Your task to perform on an android device: Open wifi settings Image 0: 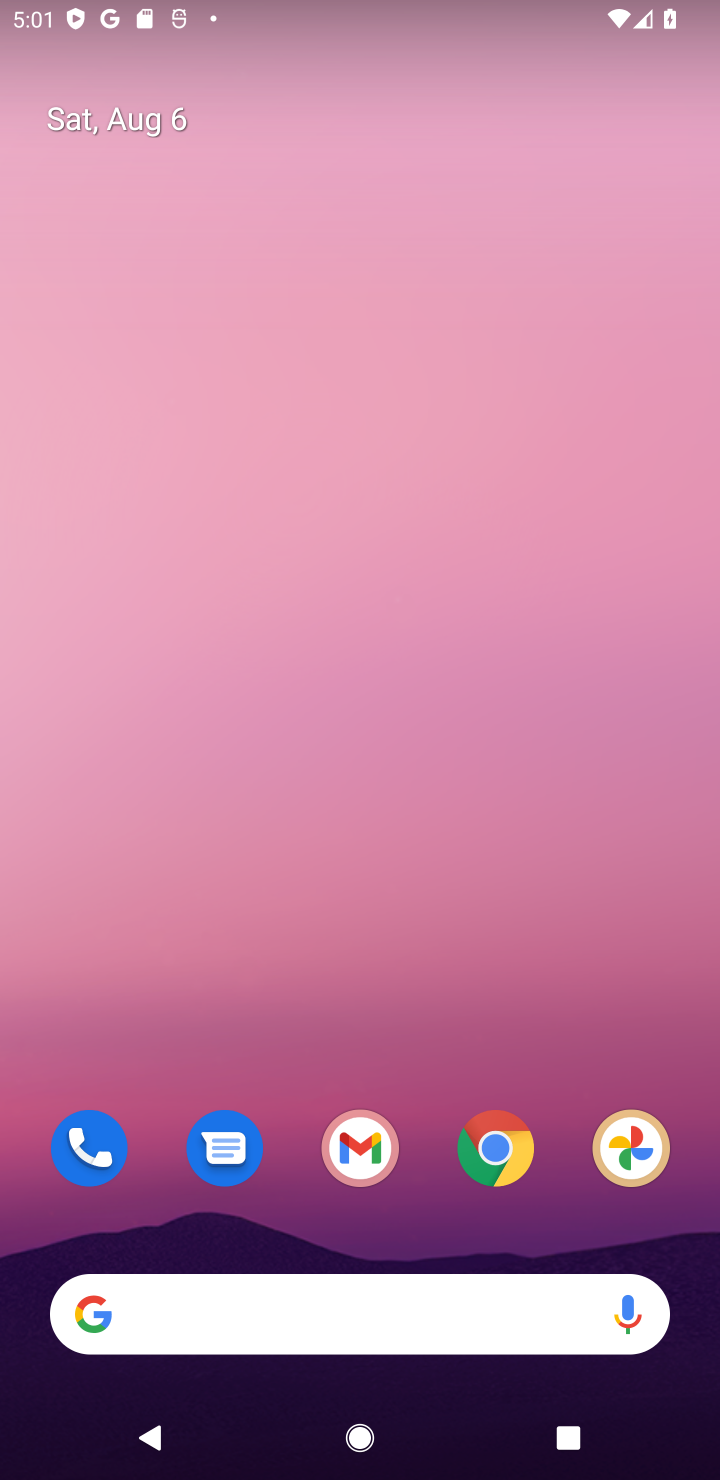
Step 0: drag from (423, 1220) to (696, 66)
Your task to perform on an android device: Open wifi settings Image 1: 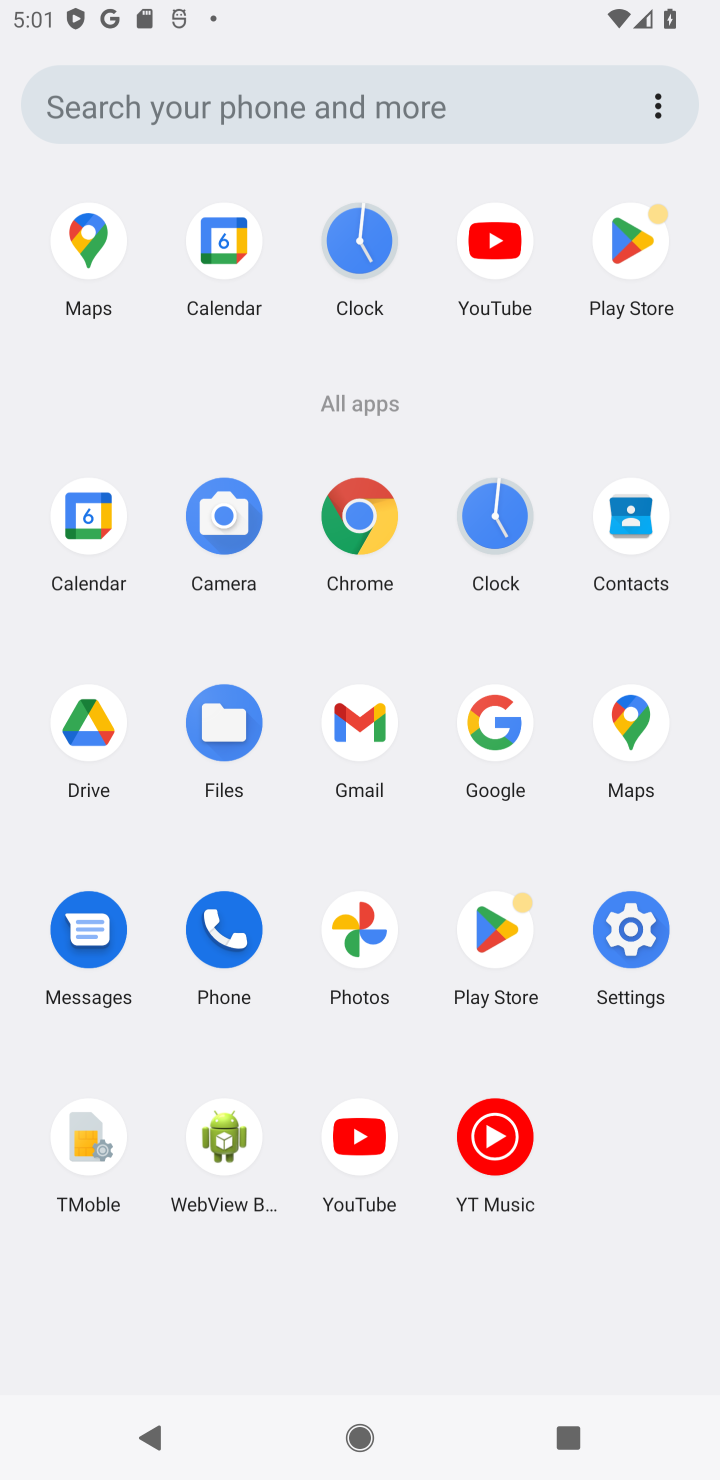
Step 1: click (614, 953)
Your task to perform on an android device: Open wifi settings Image 2: 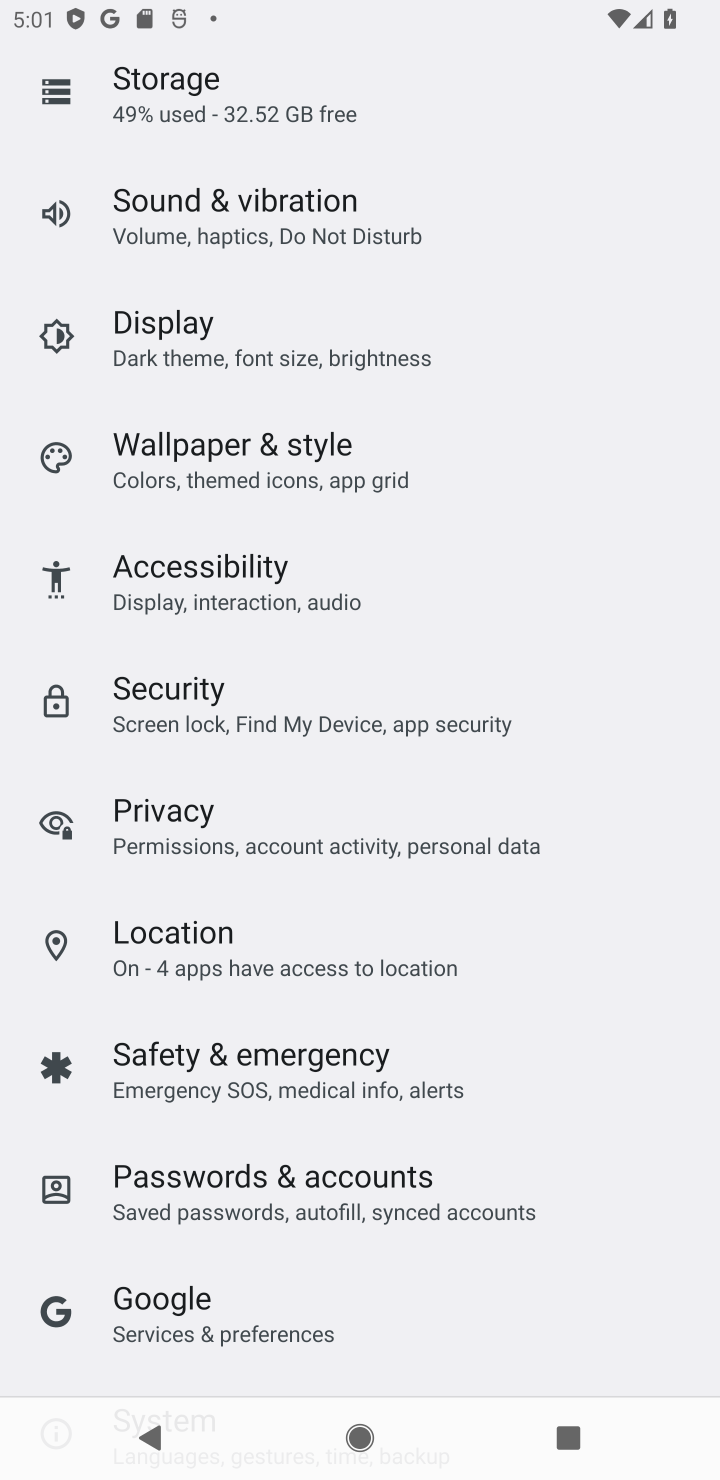
Step 2: drag from (262, 283) to (237, 1025)
Your task to perform on an android device: Open wifi settings Image 3: 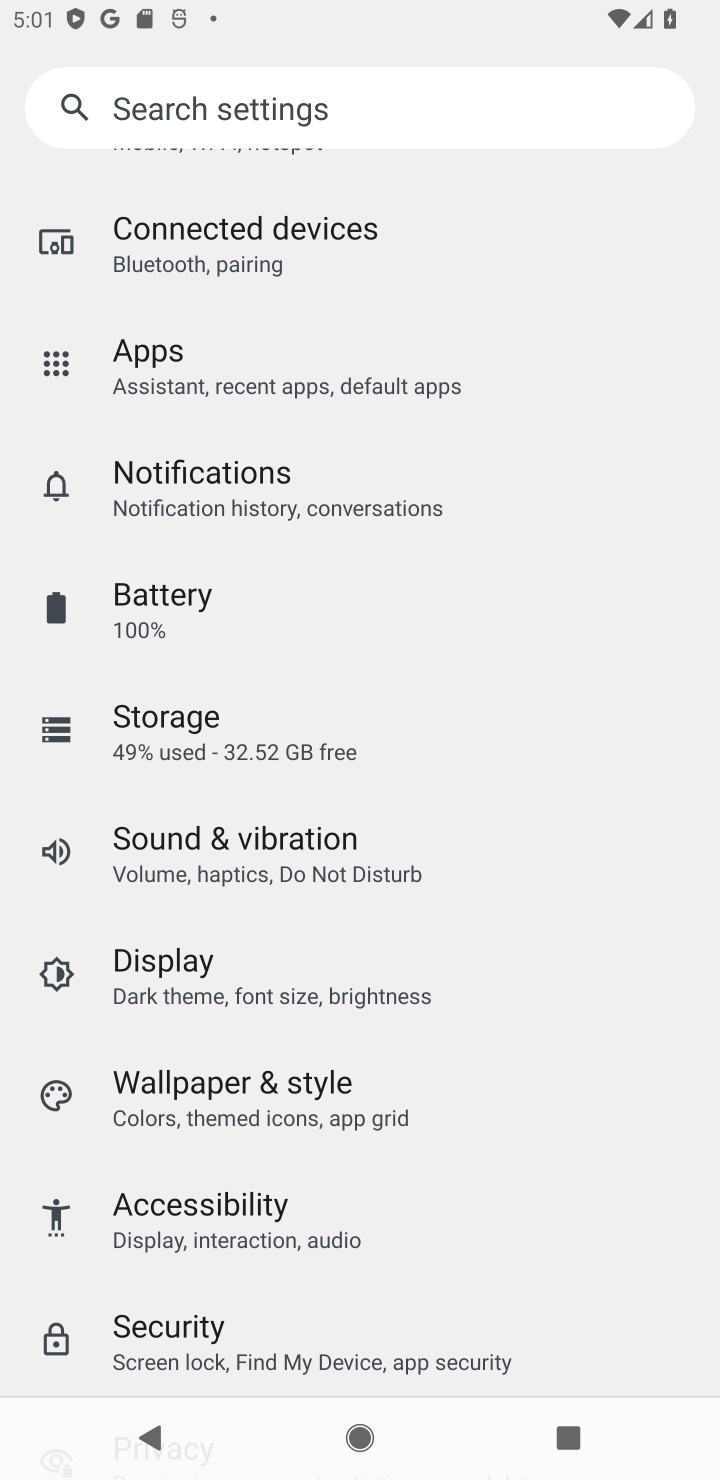
Step 3: drag from (213, 268) to (209, 1064)
Your task to perform on an android device: Open wifi settings Image 4: 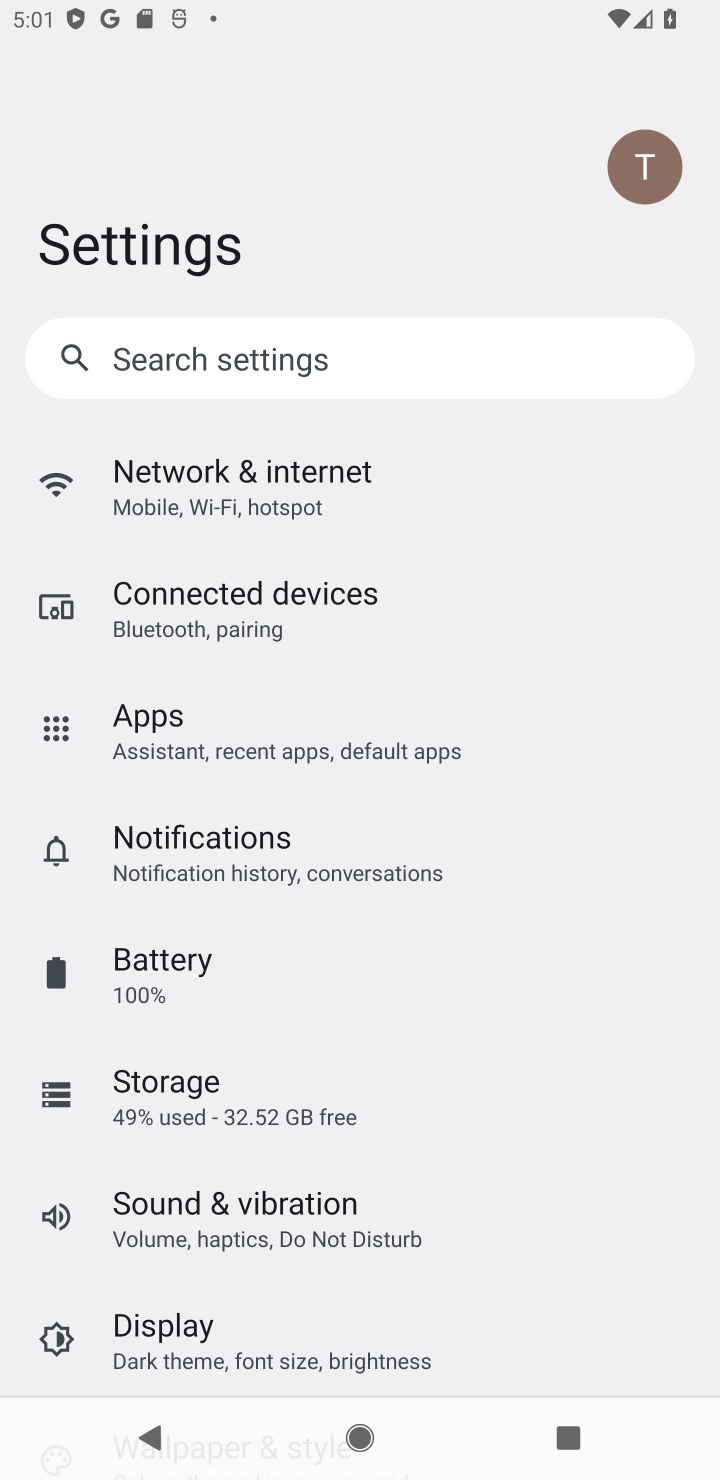
Step 4: click (189, 474)
Your task to perform on an android device: Open wifi settings Image 5: 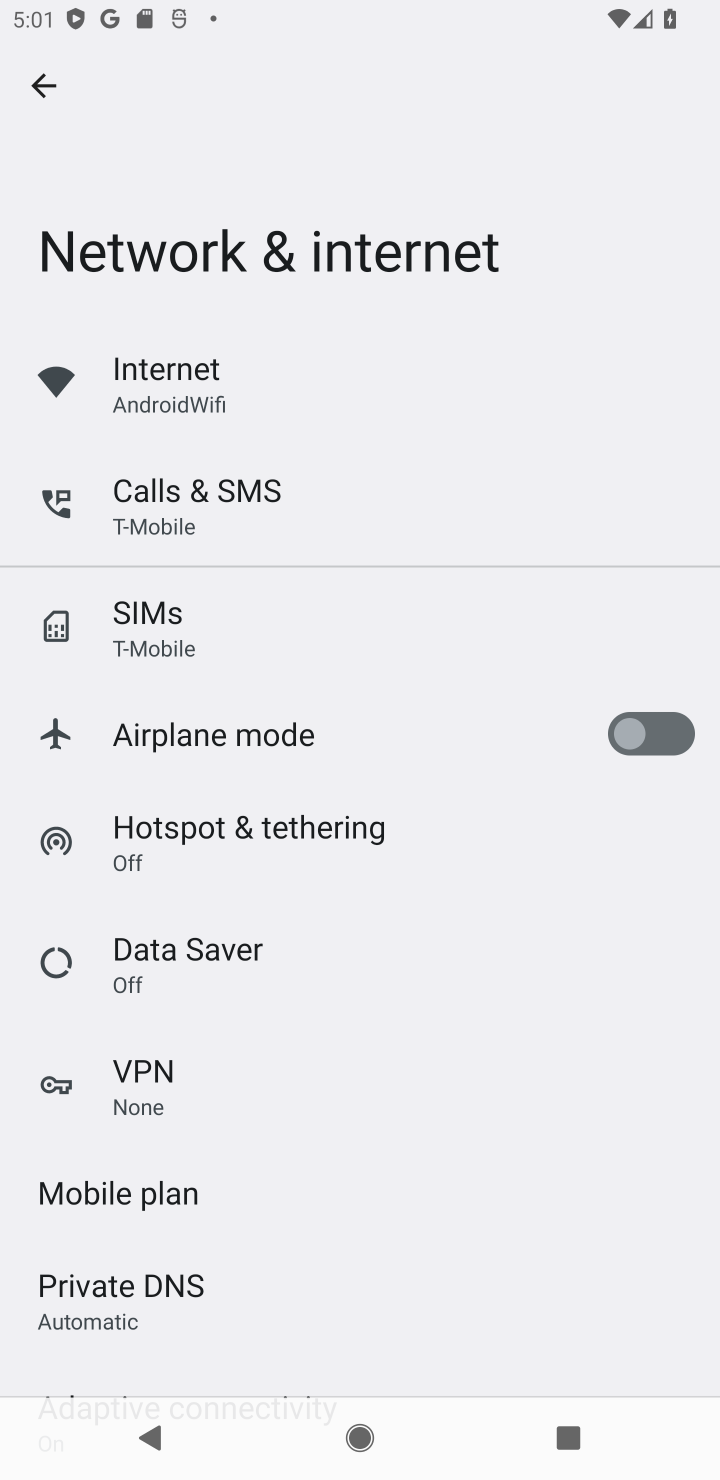
Step 5: task complete